Your task to perform on an android device: Go to Maps Image 0: 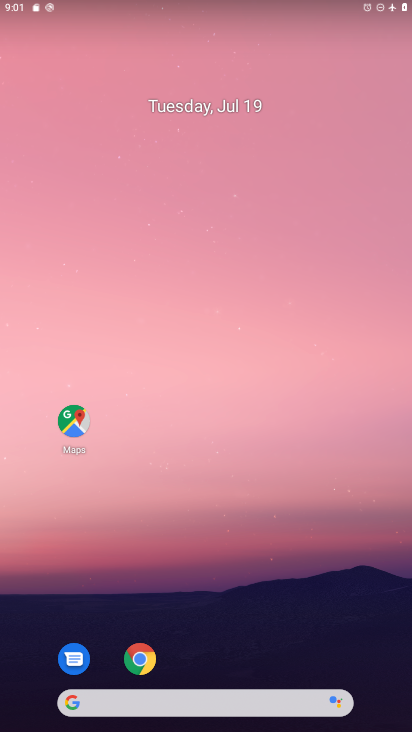
Step 0: click (81, 421)
Your task to perform on an android device: Go to Maps Image 1: 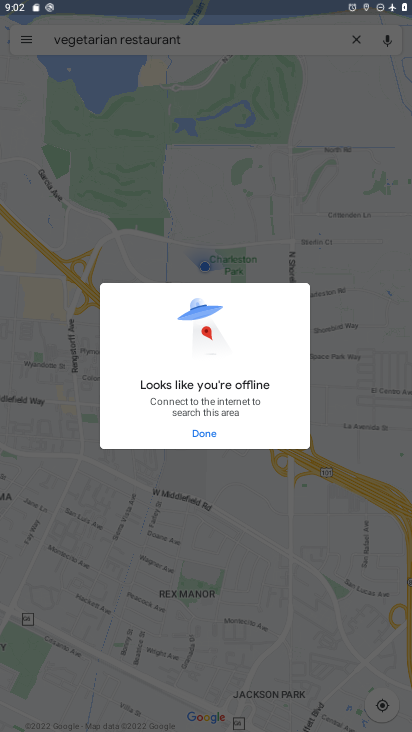
Step 1: click (202, 432)
Your task to perform on an android device: Go to Maps Image 2: 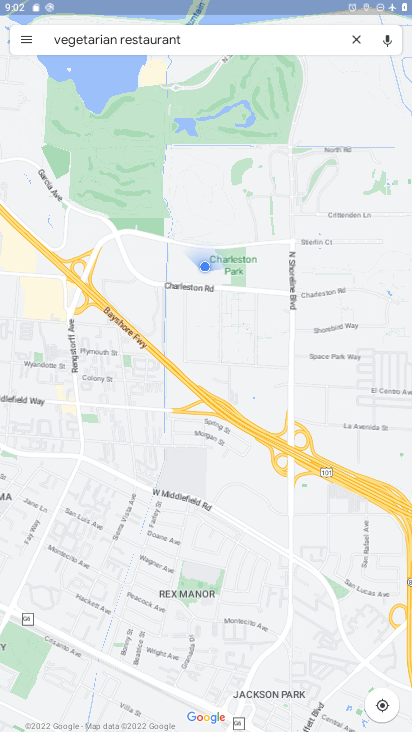
Step 2: task complete